Your task to perform on an android device: Open calendar and show me the third week of next month Image 0: 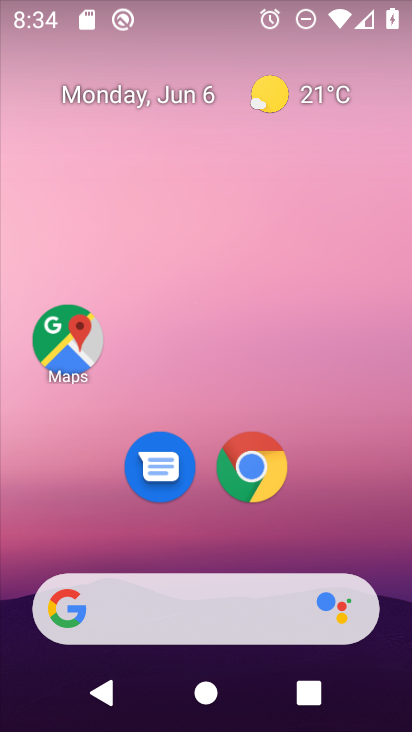
Step 0: drag from (361, 538) to (373, 130)
Your task to perform on an android device: Open calendar and show me the third week of next month Image 1: 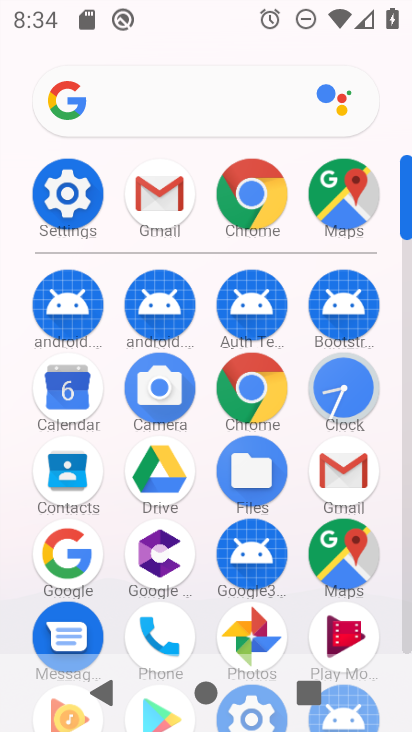
Step 1: click (74, 405)
Your task to perform on an android device: Open calendar and show me the third week of next month Image 2: 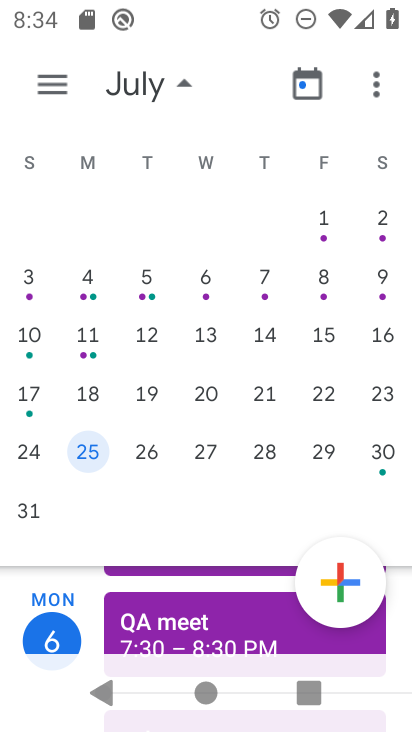
Step 2: click (86, 387)
Your task to perform on an android device: Open calendar and show me the third week of next month Image 3: 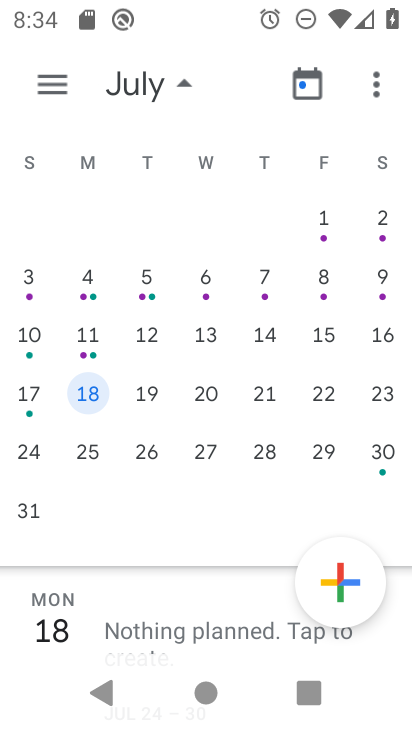
Step 3: task complete